Your task to perform on an android device: Play the last video I watched on Youtube Image 0: 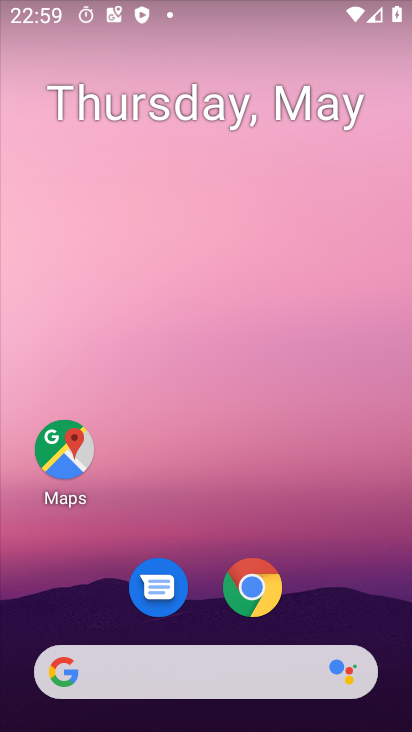
Step 0: drag from (344, 572) to (362, 19)
Your task to perform on an android device: Play the last video I watched on Youtube Image 1: 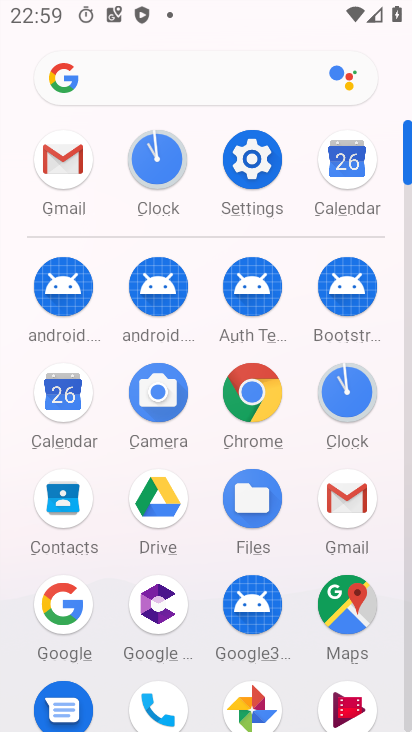
Step 1: click (405, 586)
Your task to perform on an android device: Play the last video I watched on Youtube Image 2: 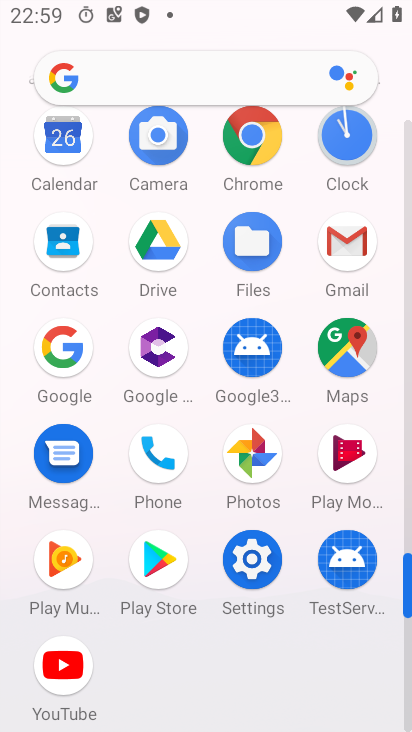
Step 2: click (70, 666)
Your task to perform on an android device: Play the last video I watched on Youtube Image 3: 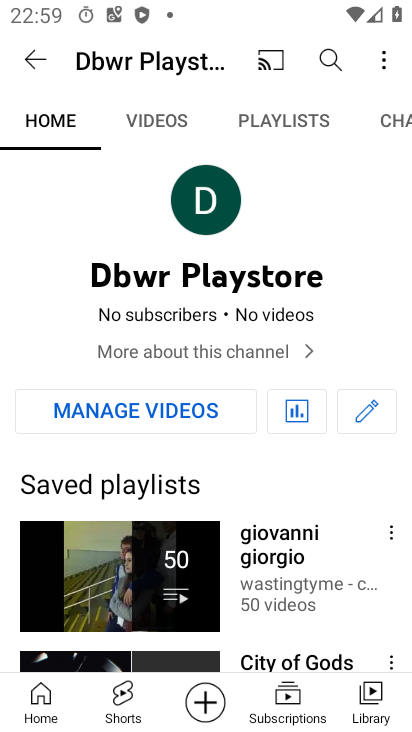
Step 3: click (363, 713)
Your task to perform on an android device: Play the last video I watched on Youtube Image 4: 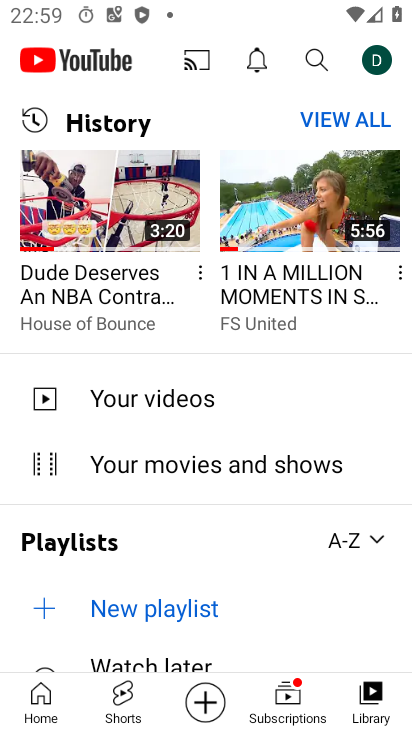
Step 4: click (121, 222)
Your task to perform on an android device: Play the last video I watched on Youtube Image 5: 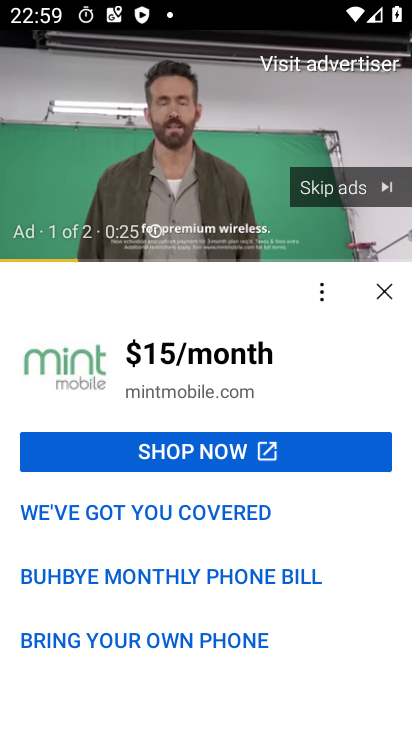
Step 5: click (372, 196)
Your task to perform on an android device: Play the last video I watched on Youtube Image 6: 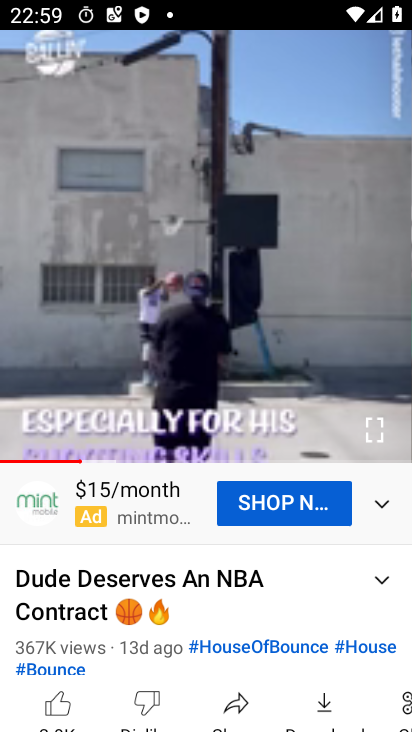
Step 6: click (146, 297)
Your task to perform on an android device: Play the last video I watched on Youtube Image 7: 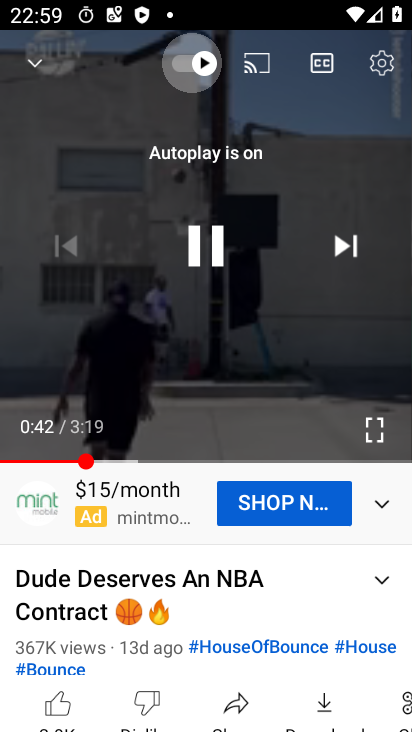
Step 7: click (195, 249)
Your task to perform on an android device: Play the last video I watched on Youtube Image 8: 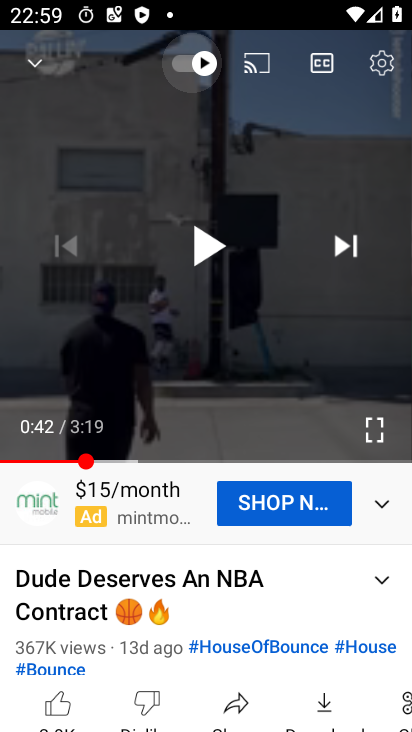
Step 8: task complete